Your task to perform on an android device: What is the capital of Sweden? Image 0: 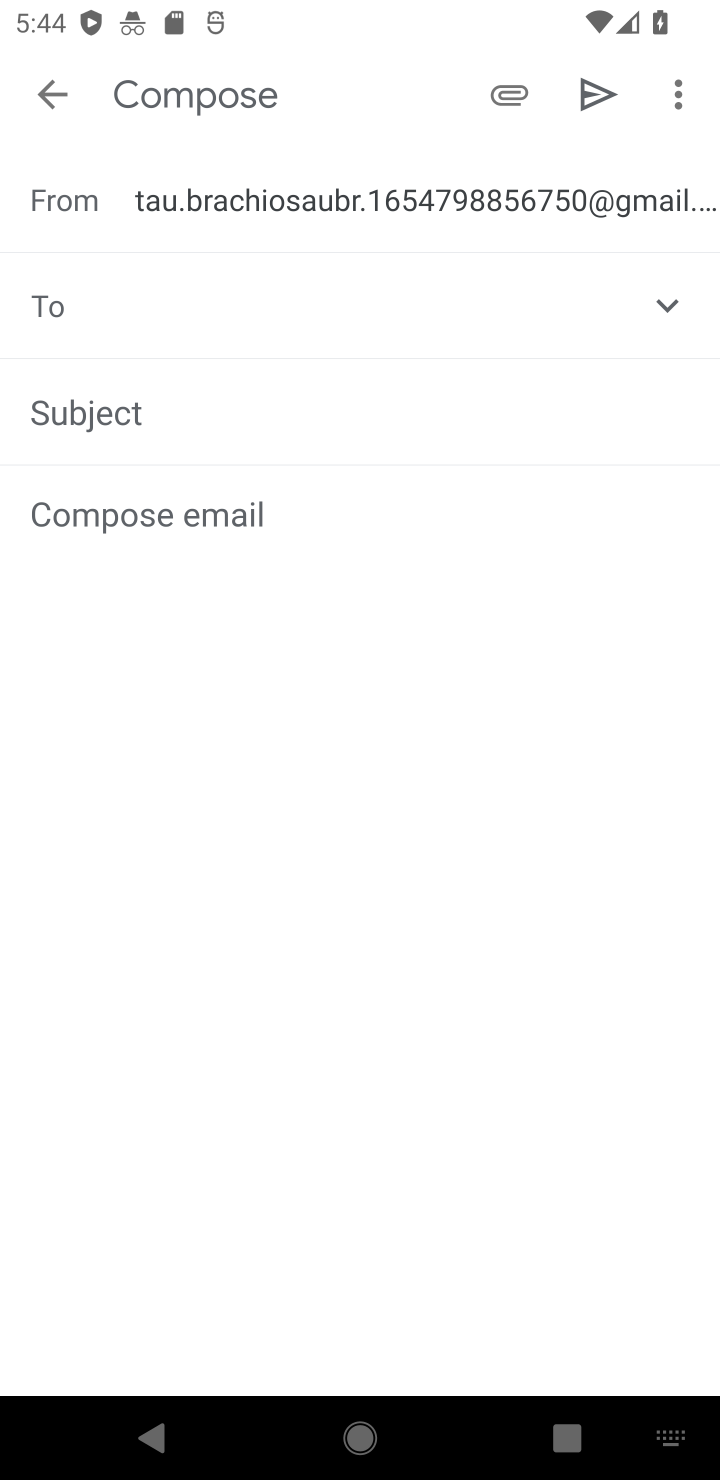
Step 0: press home button
Your task to perform on an android device: What is the capital of Sweden? Image 1: 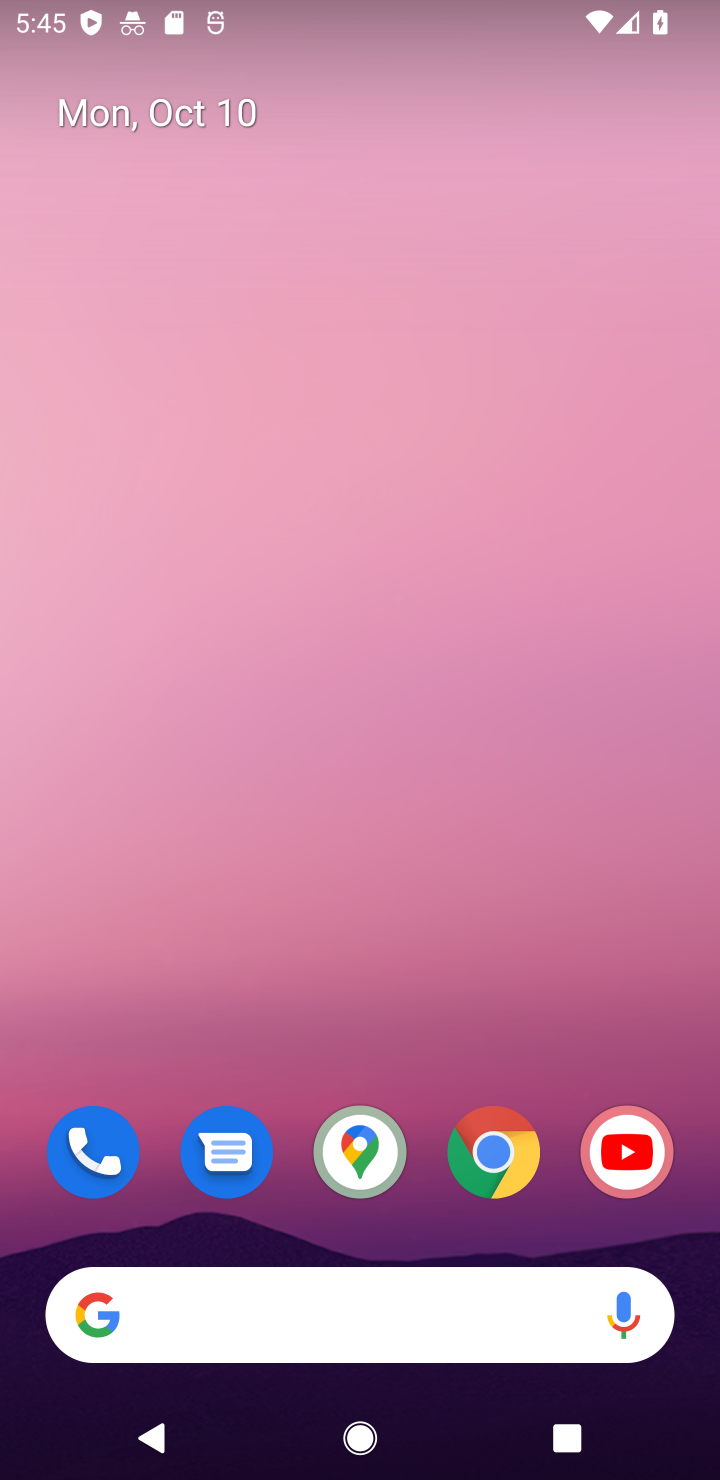
Step 1: click (492, 1152)
Your task to perform on an android device: What is the capital of Sweden? Image 2: 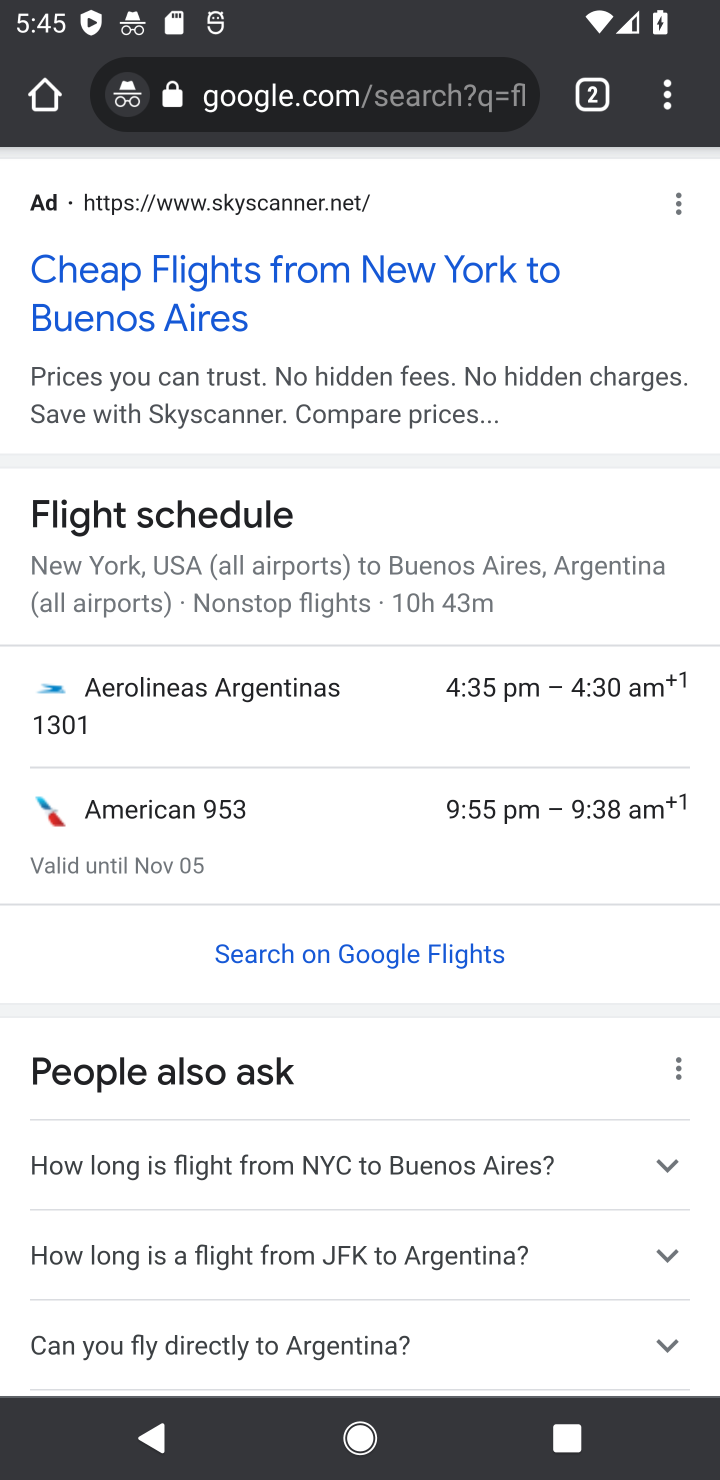
Step 2: click (365, 98)
Your task to perform on an android device: What is the capital of Sweden? Image 3: 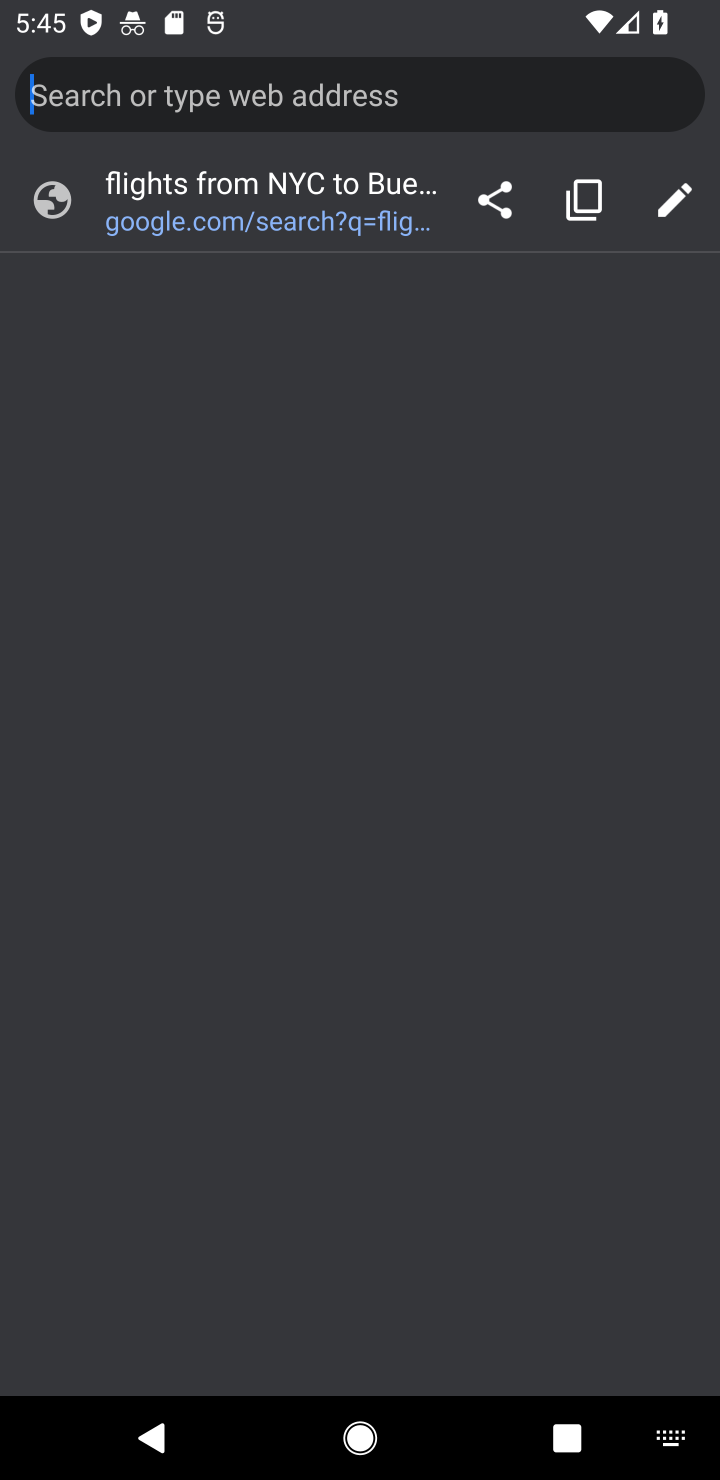
Step 3: type "What is the capital of Sweden?"
Your task to perform on an android device: What is the capital of Sweden? Image 4: 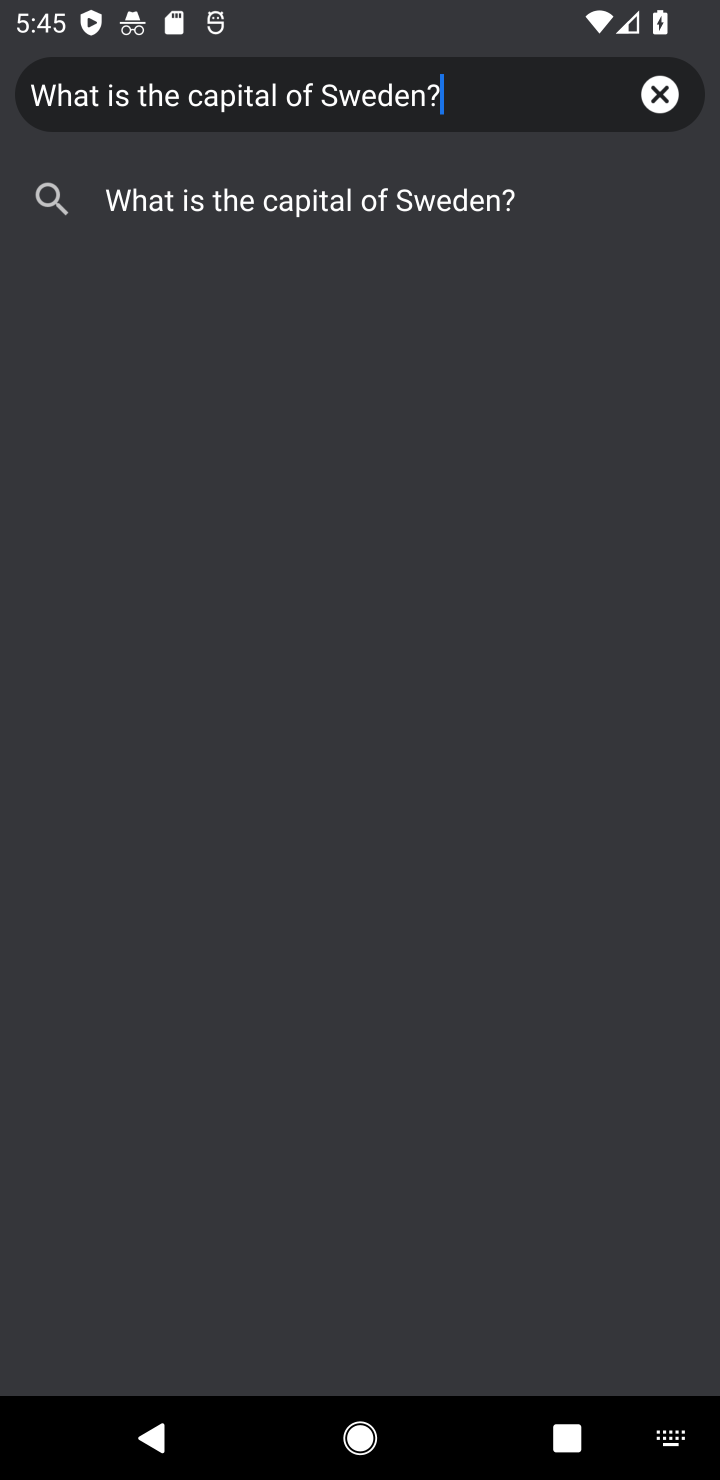
Step 4: click (221, 196)
Your task to perform on an android device: What is the capital of Sweden? Image 5: 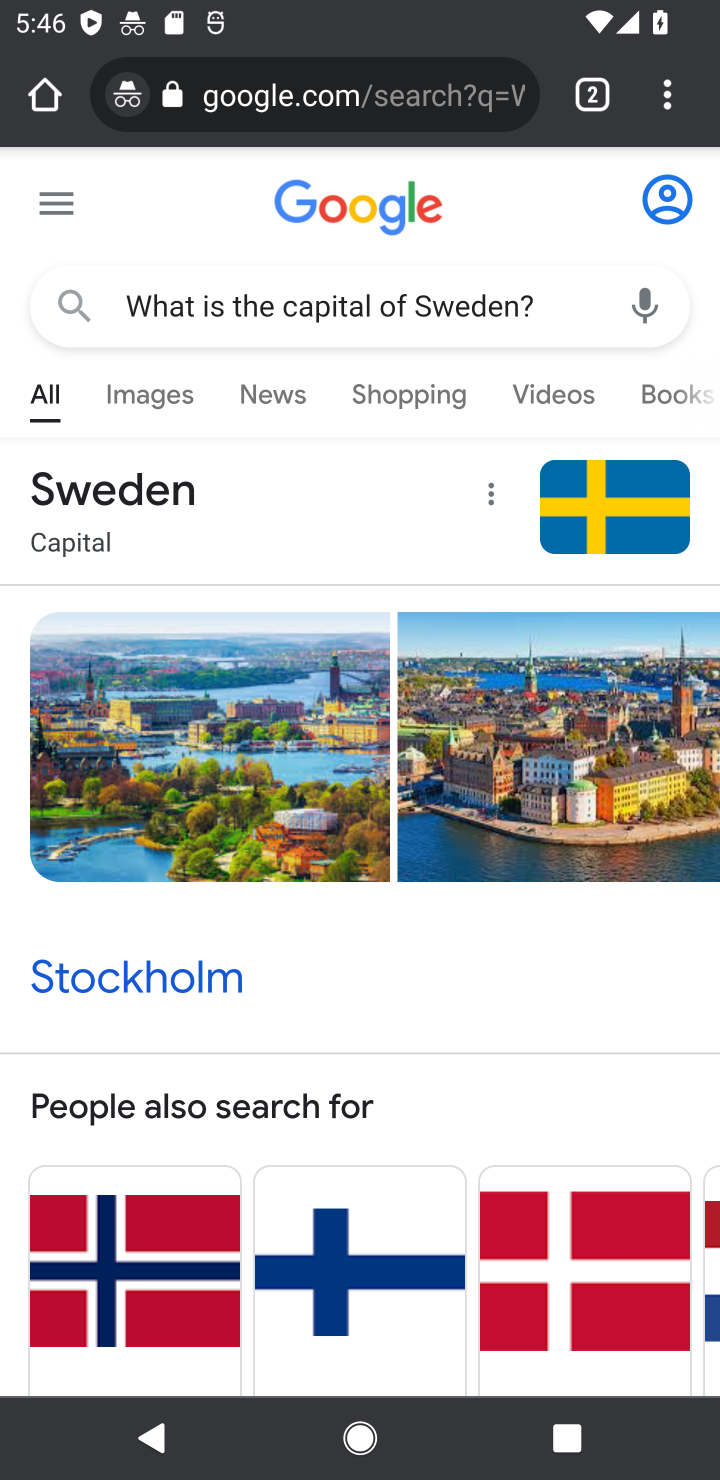
Step 5: task complete